Your task to perform on an android device: Search for sushi restaurants on Maps Image 0: 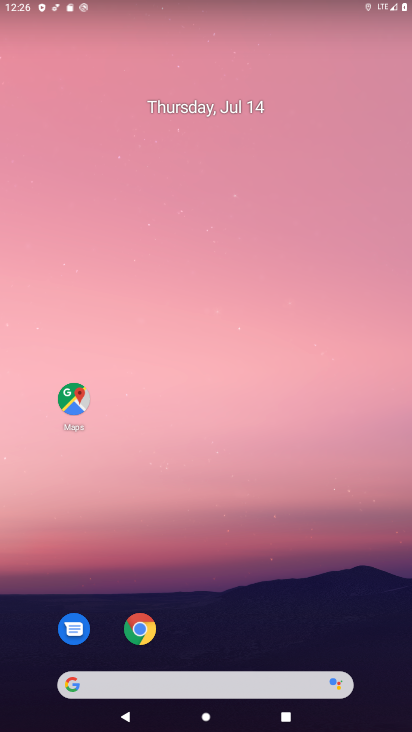
Step 0: drag from (278, 591) to (178, 199)
Your task to perform on an android device: Search for sushi restaurants on Maps Image 1: 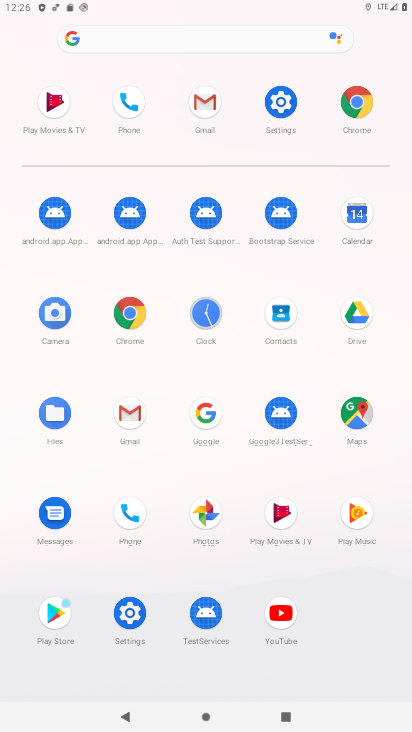
Step 1: click (348, 413)
Your task to perform on an android device: Search for sushi restaurants on Maps Image 2: 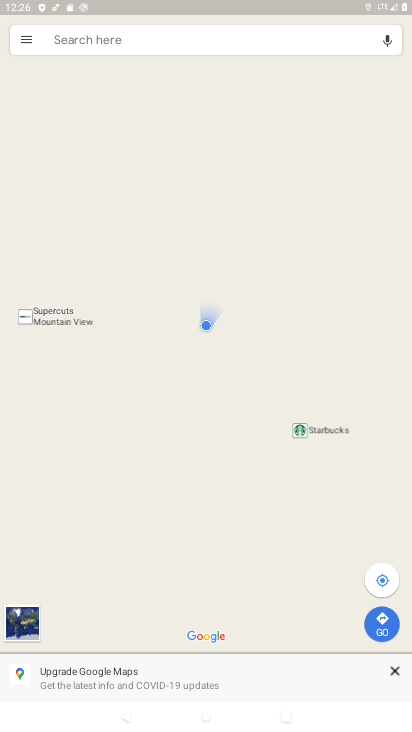
Step 2: click (143, 44)
Your task to perform on an android device: Search for sushi restaurants on Maps Image 3: 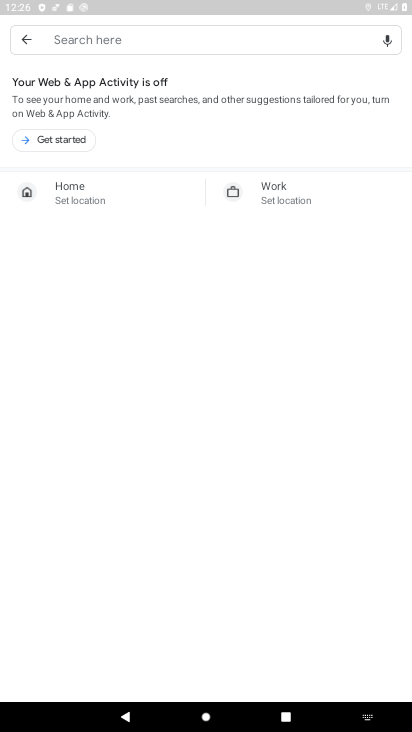
Step 3: type " sushi restaurants"
Your task to perform on an android device: Search for sushi restaurants on Maps Image 4: 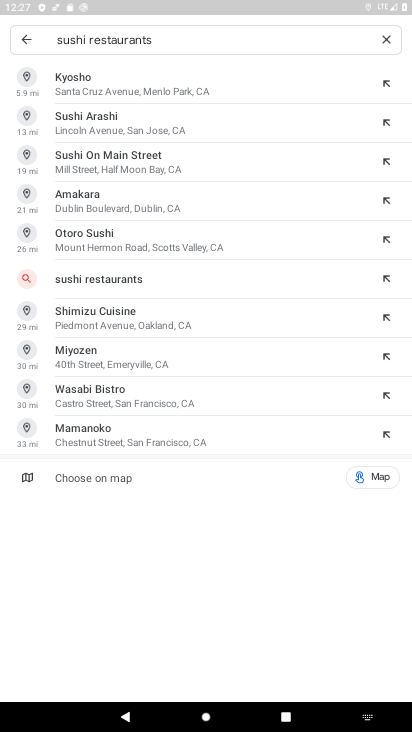
Step 4: press enter
Your task to perform on an android device: Search for sushi restaurants on Maps Image 5: 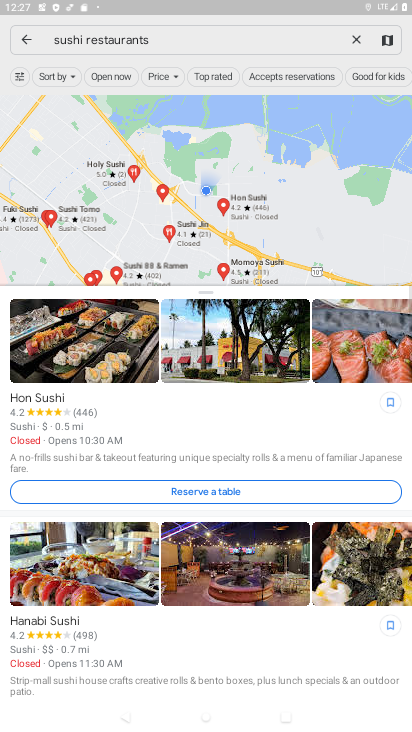
Step 5: task complete